Your task to perform on an android device: Open location settings Image 0: 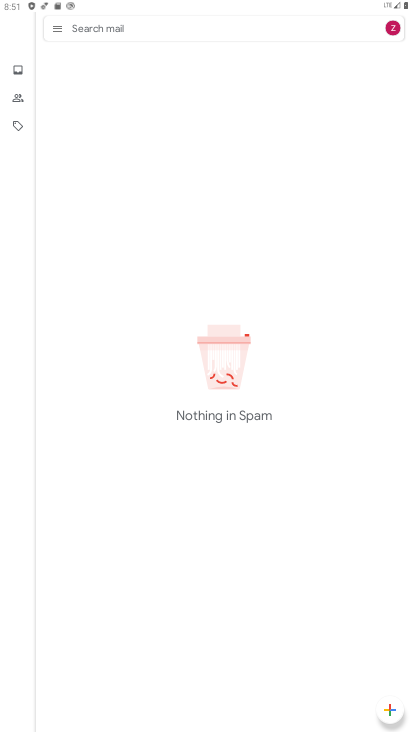
Step 0: press home button
Your task to perform on an android device: Open location settings Image 1: 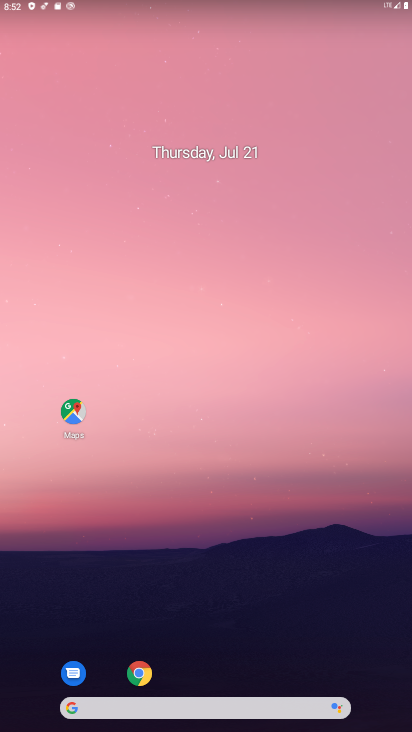
Step 1: drag from (196, 648) to (190, 122)
Your task to perform on an android device: Open location settings Image 2: 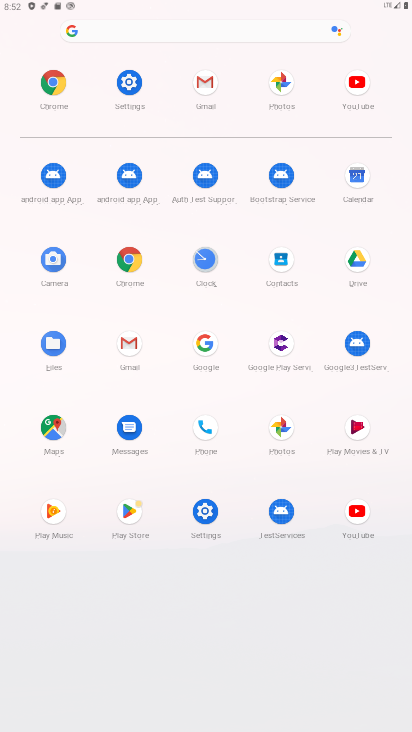
Step 2: click (138, 93)
Your task to perform on an android device: Open location settings Image 3: 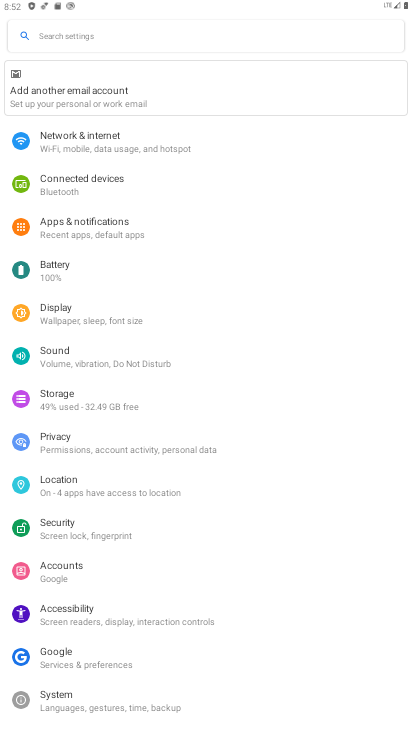
Step 3: click (66, 489)
Your task to perform on an android device: Open location settings Image 4: 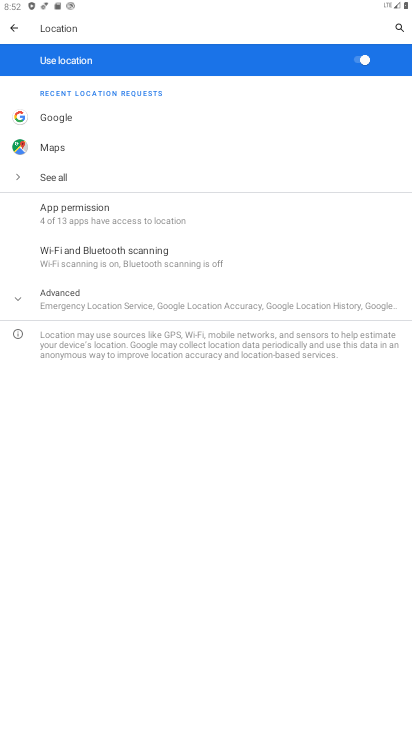
Step 4: task complete